Your task to perform on an android device: change the clock display to show seconds Image 0: 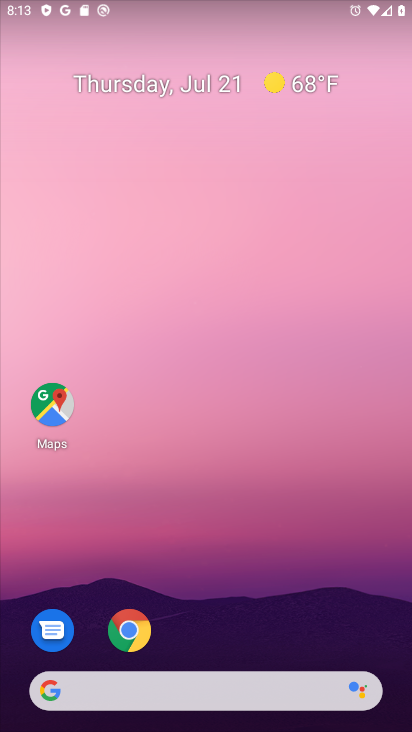
Step 0: drag from (247, 634) to (165, 24)
Your task to perform on an android device: change the clock display to show seconds Image 1: 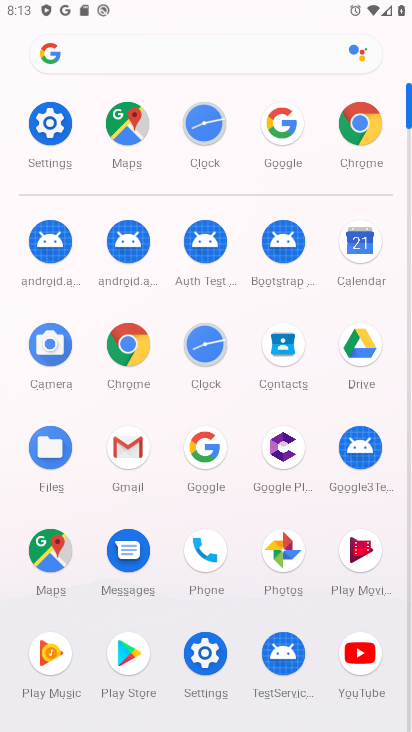
Step 1: click (213, 129)
Your task to perform on an android device: change the clock display to show seconds Image 2: 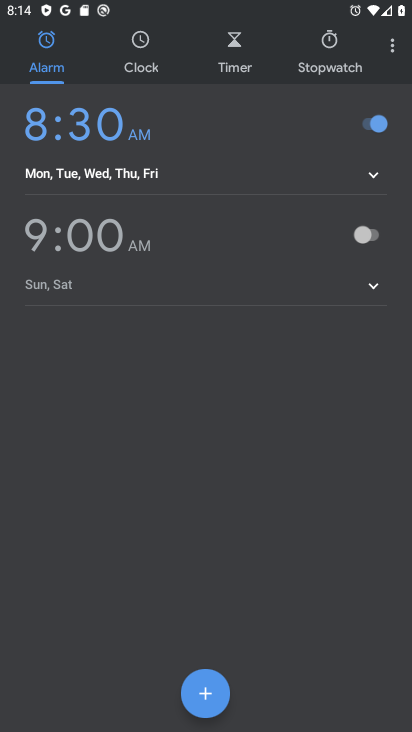
Step 2: click (386, 51)
Your task to perform on an android device: change the clock display to show seconds Image 3: 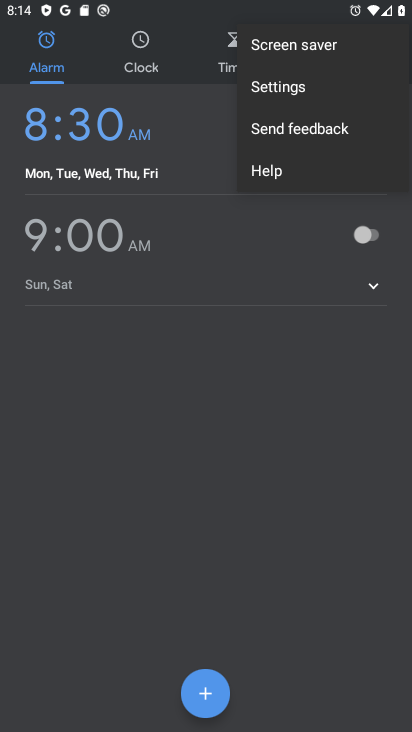
Step 3: click (288, 96)
Your task to perform on an android device: change the clock display to show seconds Image 4: 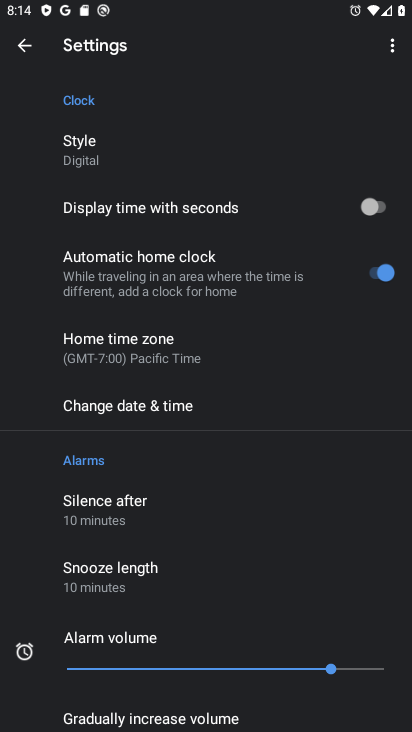
Step 4: click (378, 201)
Your task to perform on an android device: change the clock display to show seconds Image 5: 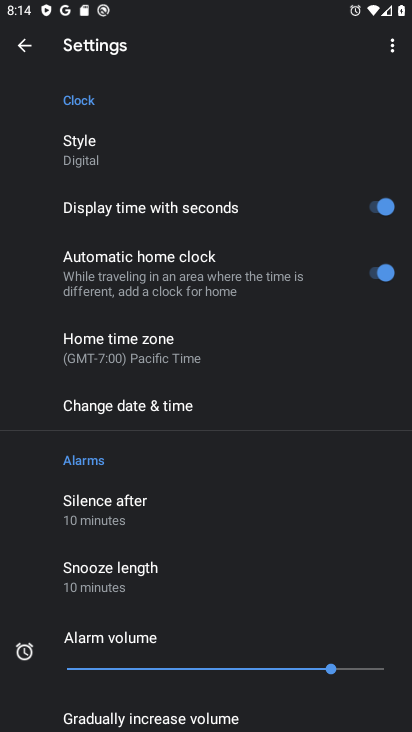
Step 5: task complete